Your task to perform on an android device: set the timer Image 0: 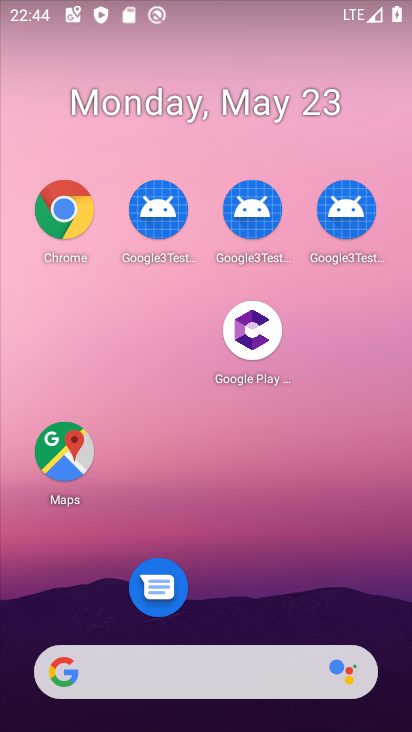
Step 0: drag from (262, 473) to (226, 155)
Your task to perform on an android device: set the timer Image 1: 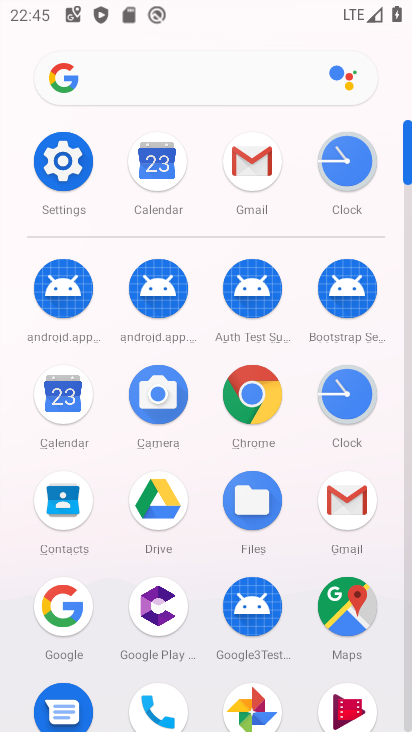
Step 1: click (346, 178)
Your task to perform on an android device: set the timer Image 2: 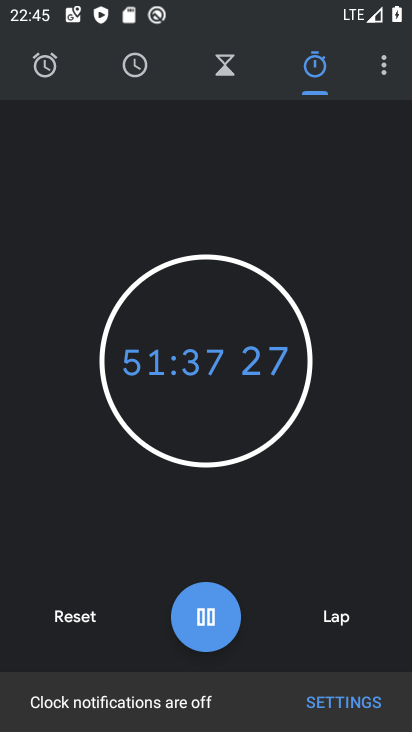
Step 2: click (234, 67)
Your task to perform on an android device: set the timer Image 3: 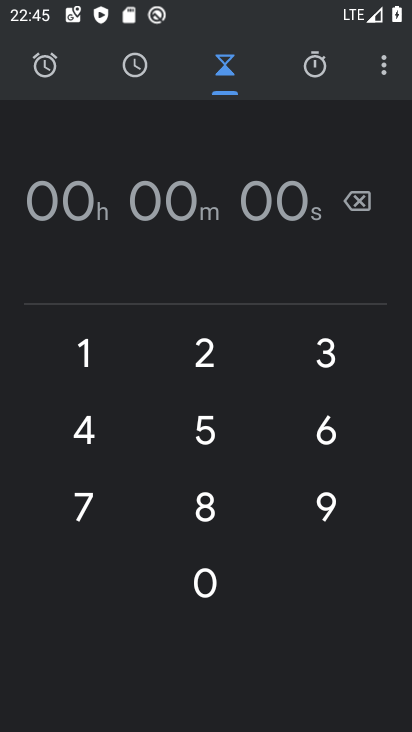
Step 3: click (84, 357)
Your task to perform on an android device: set the timer Image 4: 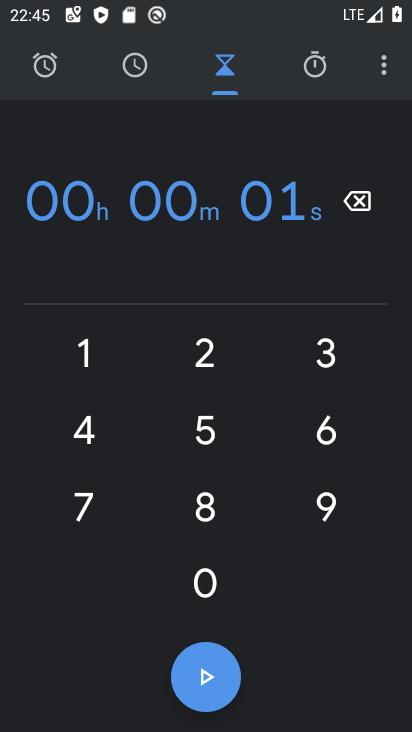
Step 4: click (366, 200)
Your task to perform on an android device: set the timer Image 5: 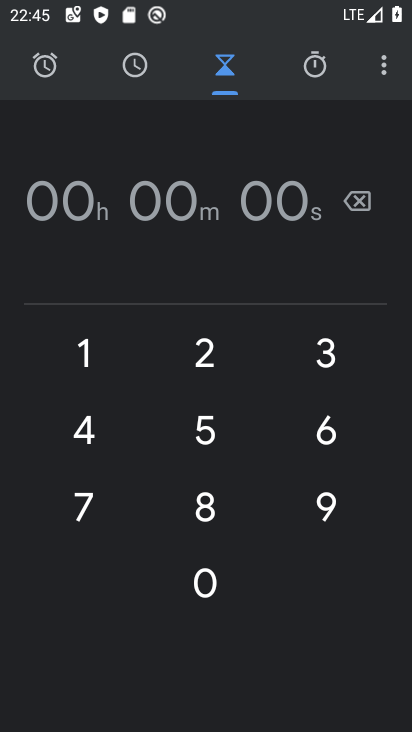
Step 5: click (204, 430)
Your task to perform on an android device: set the timer Image 6: 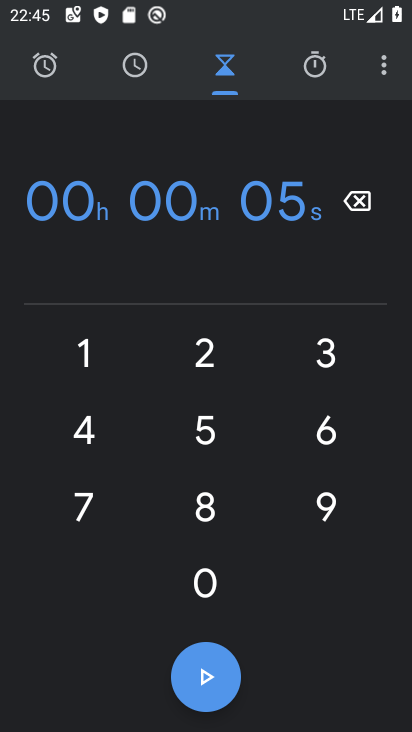
Step 6: click (213, 594)
Your task to perform on an android device: set the timer Image 7: 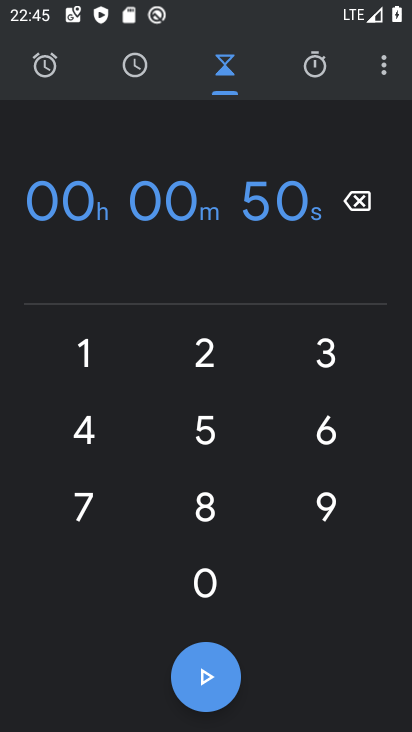
Step 7: click (131, 198)
Your task to perform on an android device: set the timer Image 8: 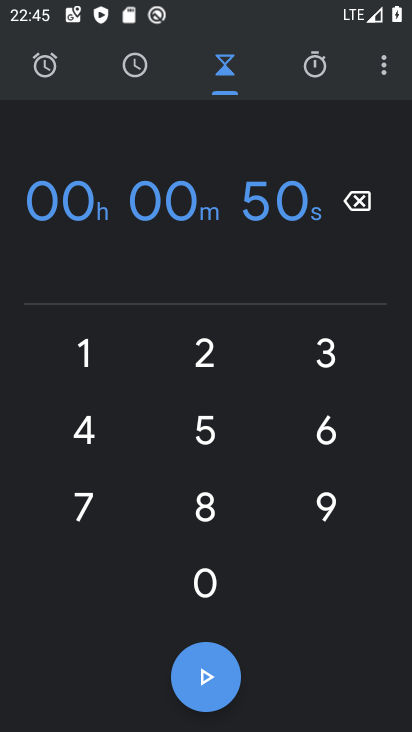
Step 8: click (325, 425)
Your task to perform on an android device: set the timer Image 9: 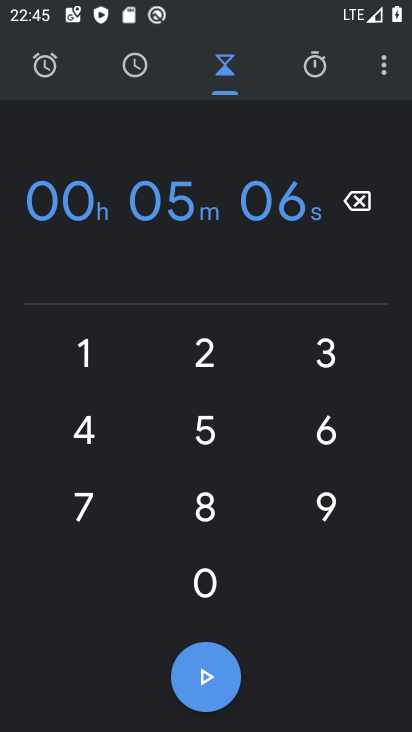
Step 9: click (183, 559)
Your task to perform on an android device: set the timer Image 10: 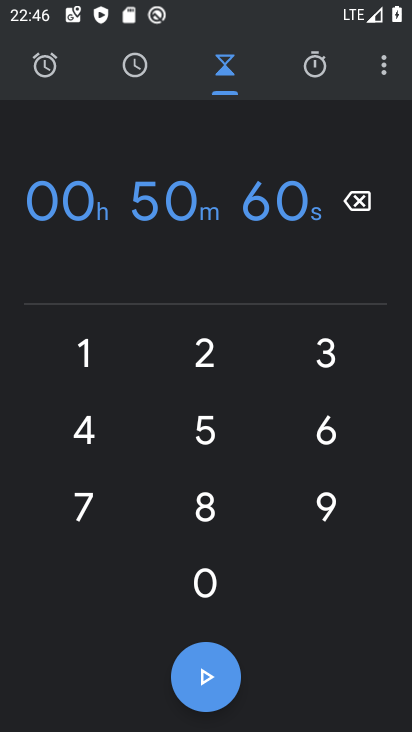
Step 10: click (85, 347)
Your task to perform on an android device: set the timer Image 11: 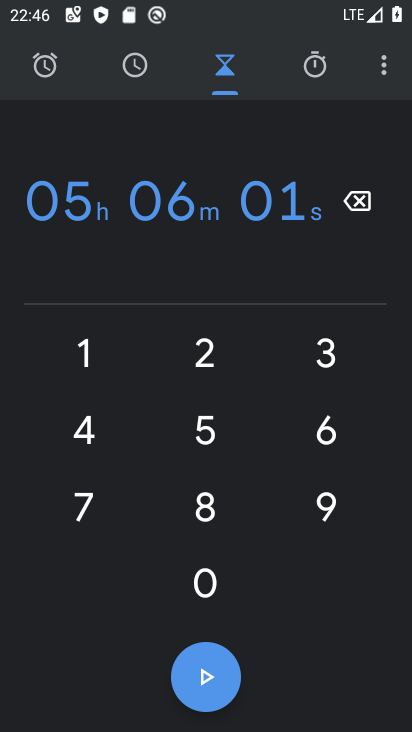
Step 11: click (319, 506)
Your task to perform on an android device: set the timer Image 12: 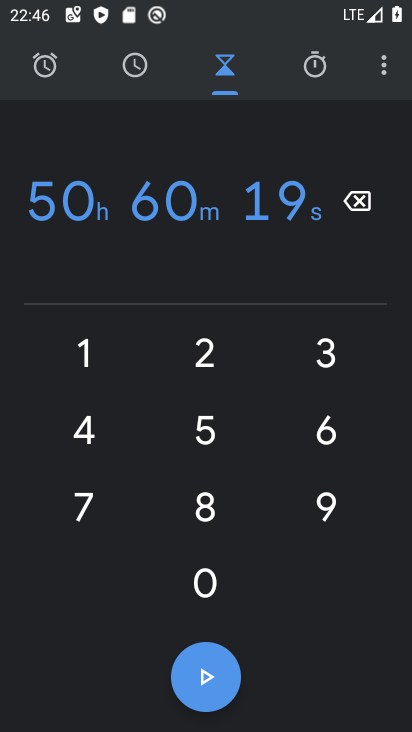
Step 12: click (200, 667)
Your task to perform on an android device: set the timer Image 13: 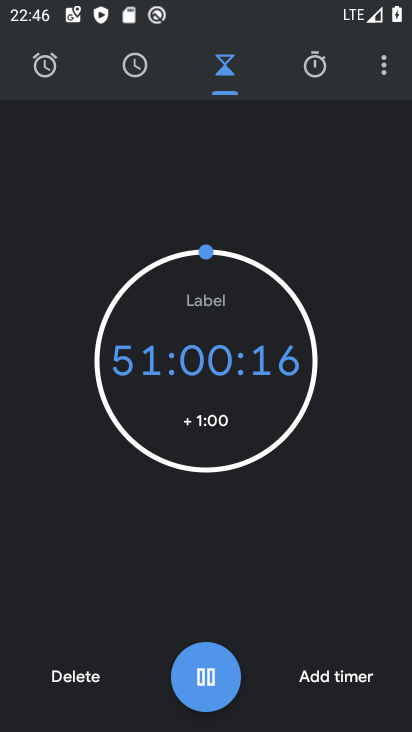
Step 13: task complete